Your task to perform on an android device: open app "Messenger Lite" (install if not already installed) and go to login screen Image 0: 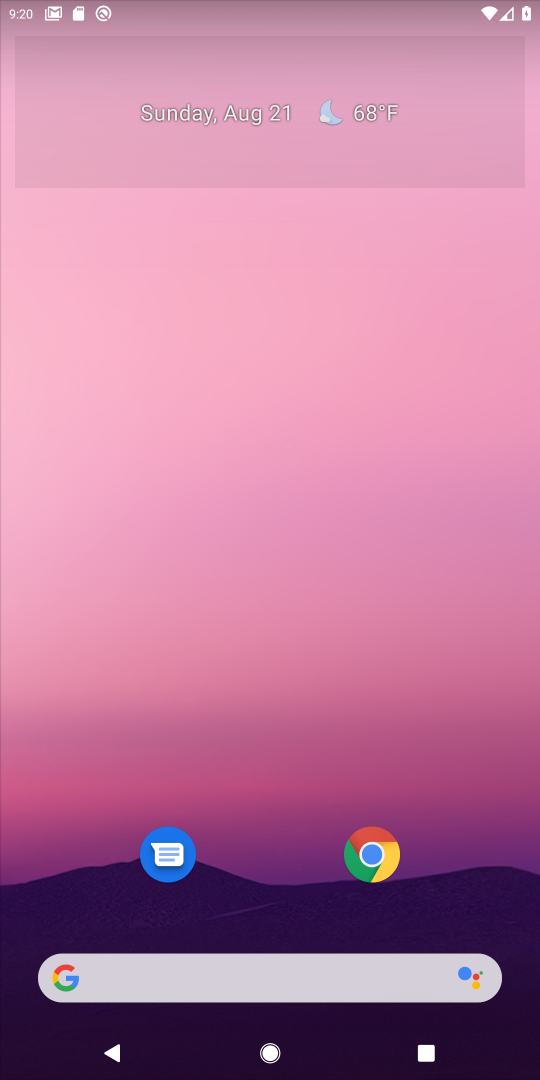
Step 0: drag from (276, 897) to (375, 143)
Your task to perform on an android device: open app "Messenger Lite" (install if not already installed) and go to login screen Image 1: 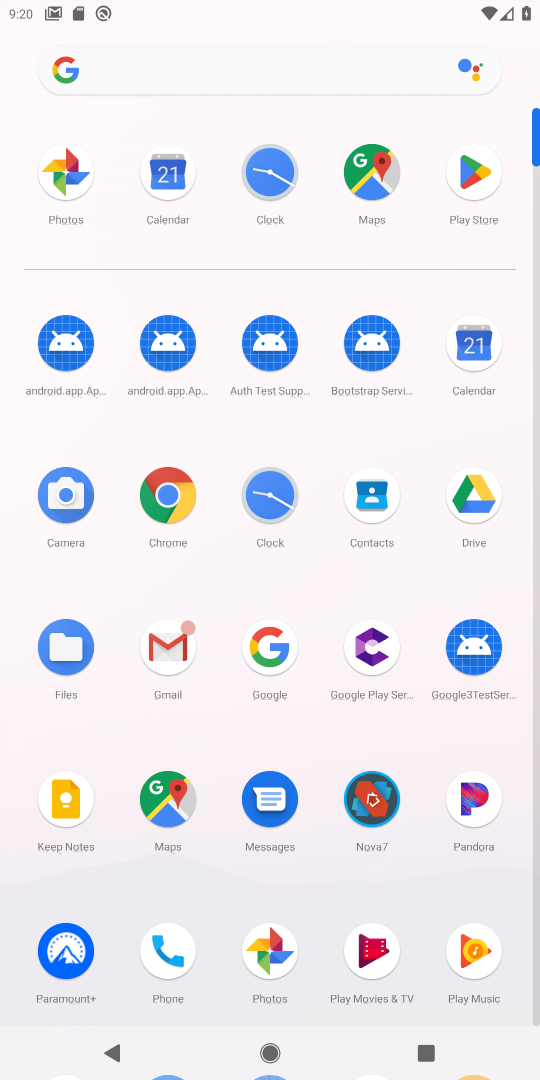
Step 1: click (479, 165)
Your task to perform on an android device: open app "Messenger Lite" (install if not already installed) and go to login screen Image 2: 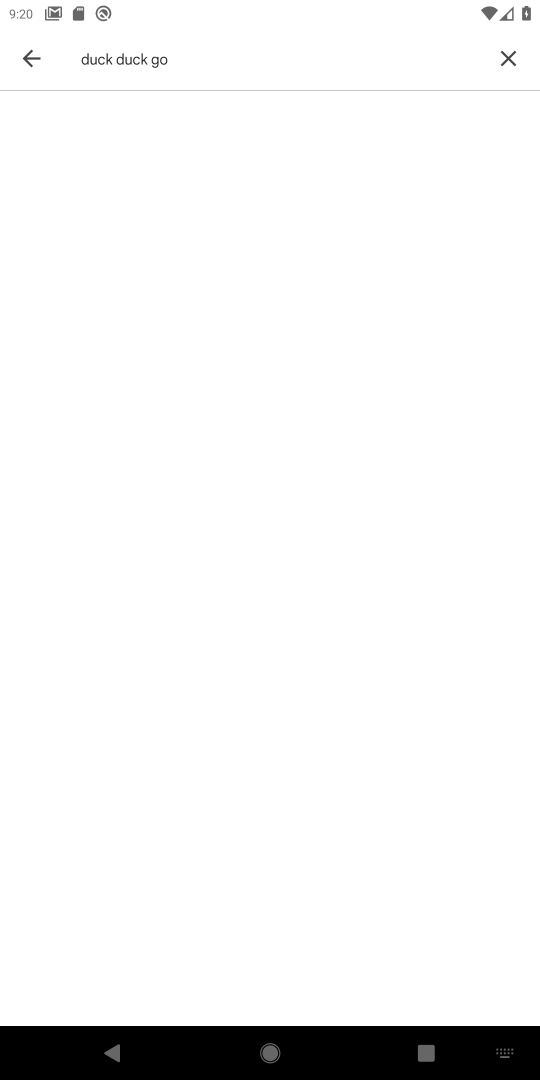
Step 2: click (496, 68)
Your task to perform on an android device: open app "Messenger Lite" (install if not already installed) and go to login screen Image 3: 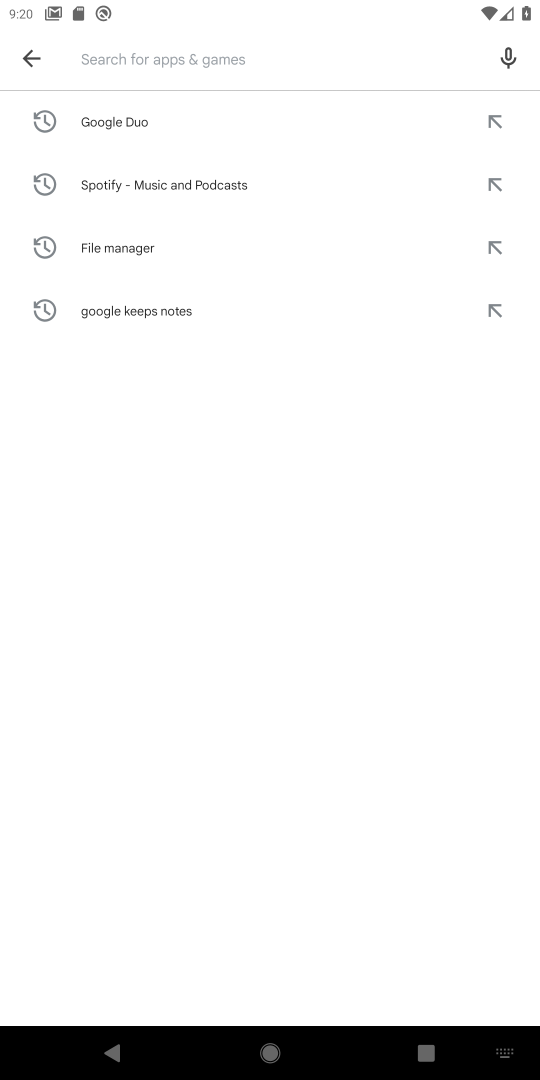
Step 3: type "messanger lite"
Your task to perform on an android device: open app "Messenger Lite" (install if not already installed) and go to login screen Image 4: 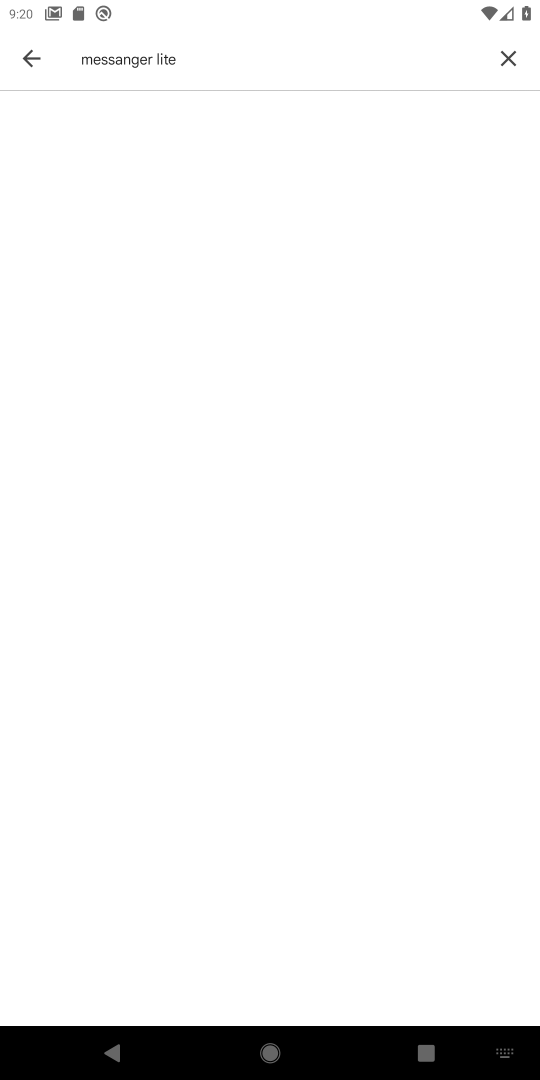
Step 4: task complete